Your task to perform on an android device: see tabs open on other devices in the chrome app Image 0: 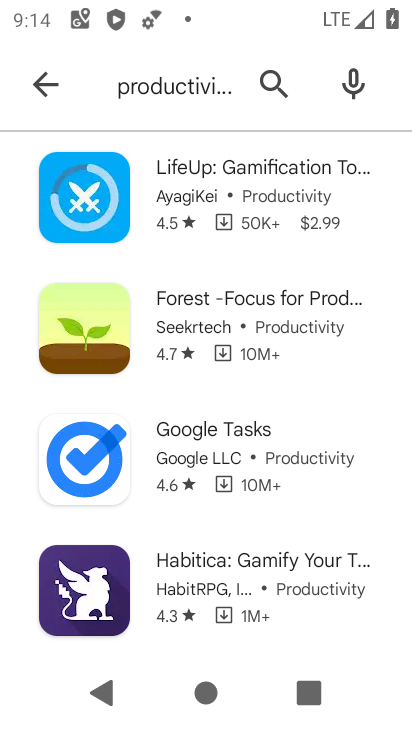
Step 0: press home button
Your task to perform on an android device: see tabs open on other devices in the chrome app Image 1: 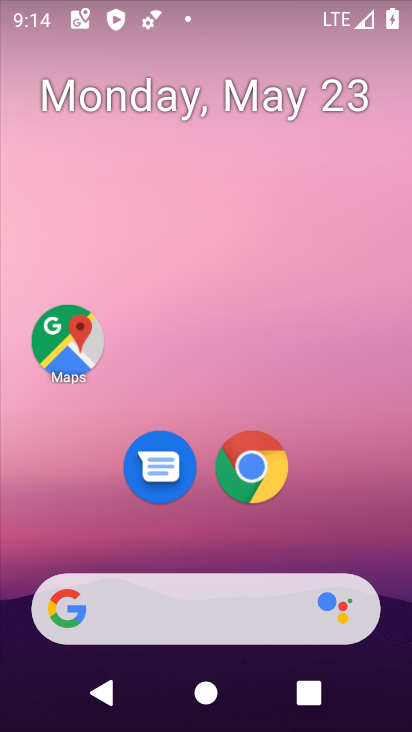
Step 1: click (244, 477)
Your task to perform on an android device: see tabs open on other devices in the chrome app Image 2: 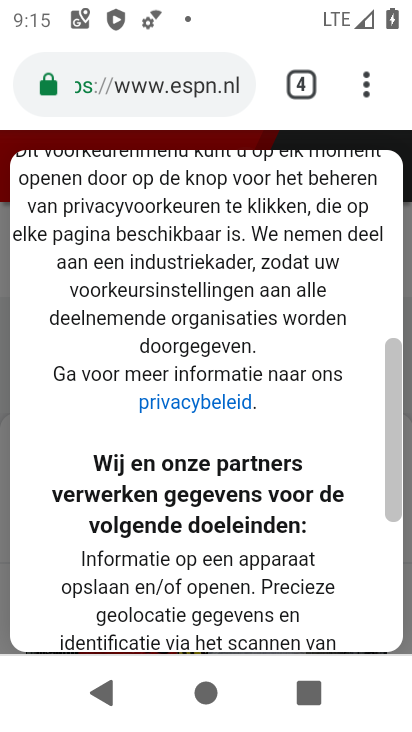
Step 2: click (368, 88)
Your task to perform on an android device: see tabs open on other devices in the chrome app Image 3: 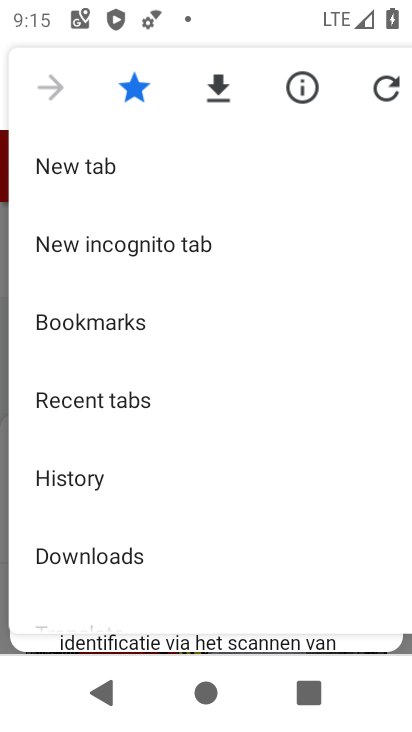
Step 3: click (145, 385)
Your task to perform on an android device: see tabs open on other devices in the chrome app Image 4: 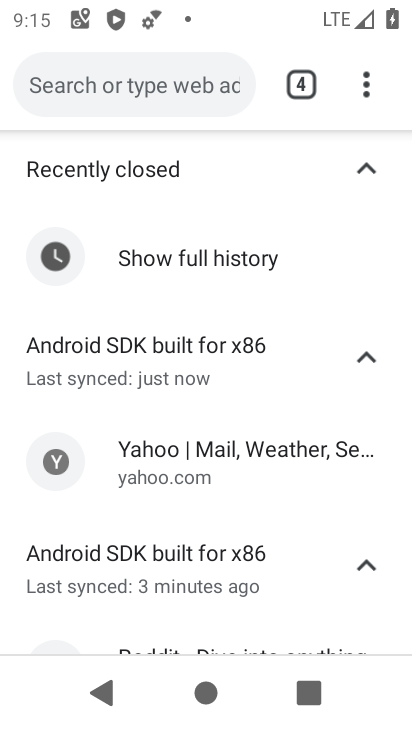
Step 4: task complete